Your task to perform on an android device: find snoozed emails in the gmail app Image 0: 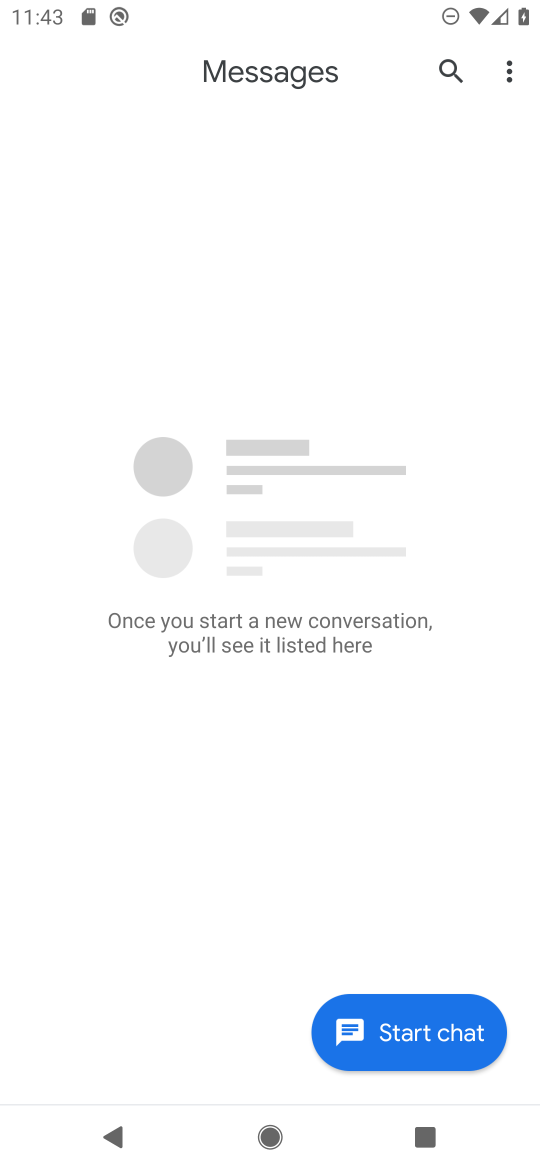
Step 0: press home button
Your task to perform on an android device: find snoozed emails in the gmail app Image 1: 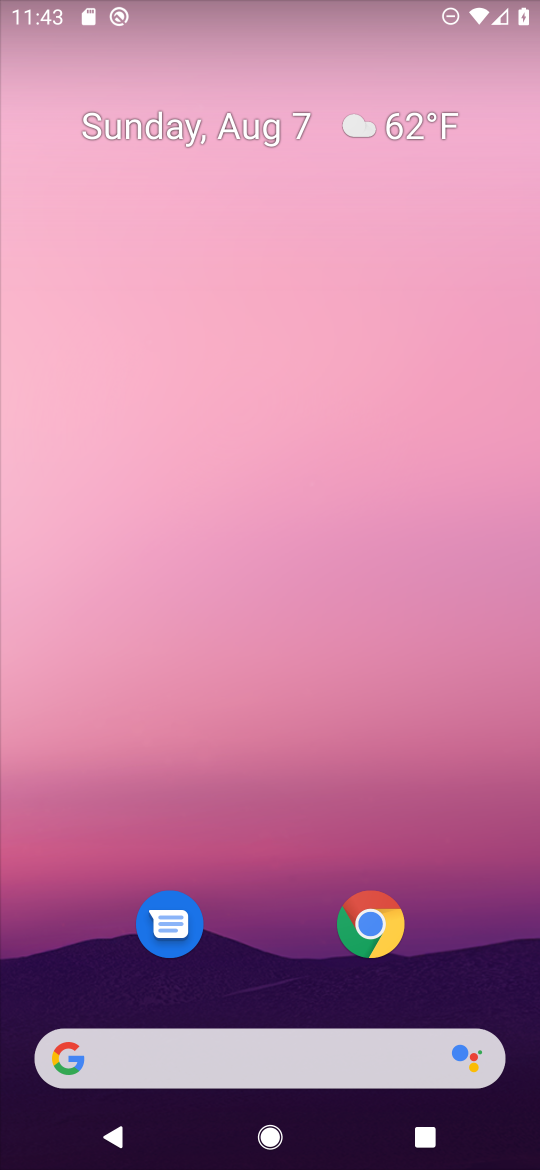
Step 1: drag from (234, 1030) to (234, 457)
Your task to perform on an android device: find snoozed emails in the gmail app Image 2: 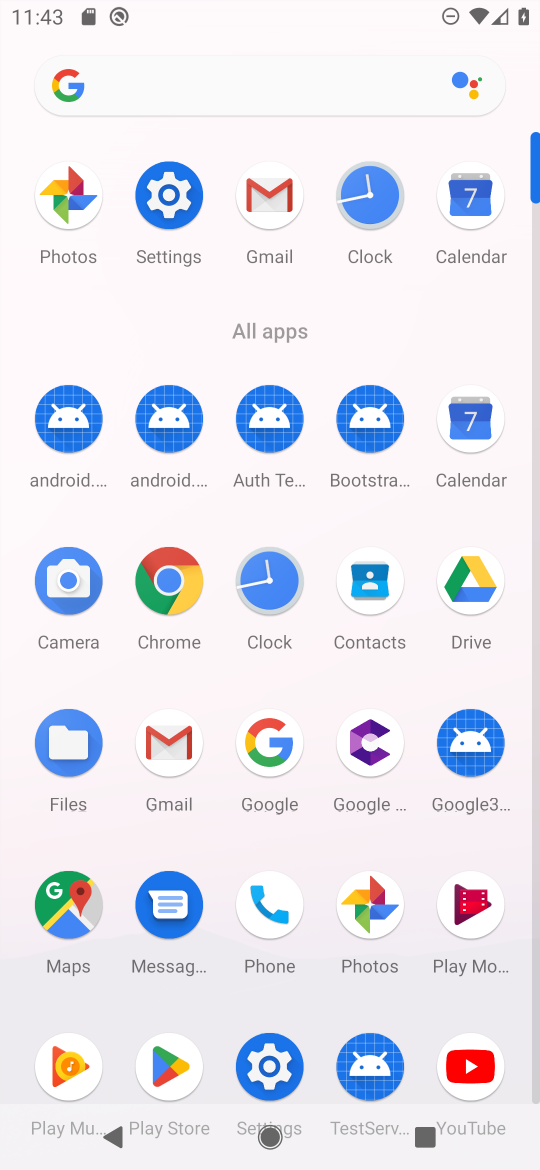
Step 2: click (254, 199)
Your task to perform on an android device: find snoozed emails in the gmail app Image 3: 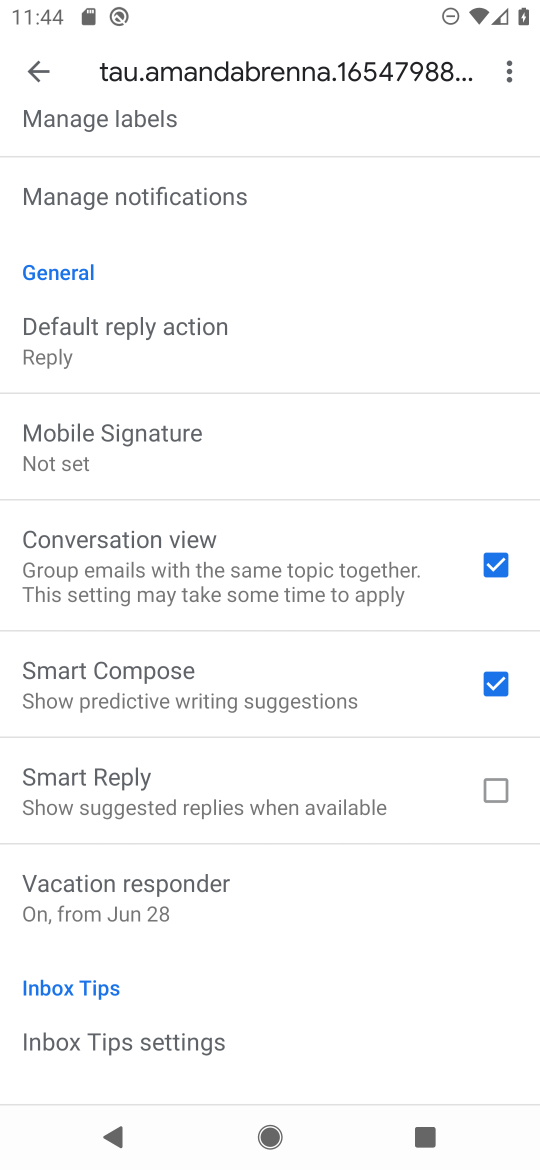
Step 3: click (39, 72)
Your task to perform on an android device: find snoozed emails in the gmail app Image 4: 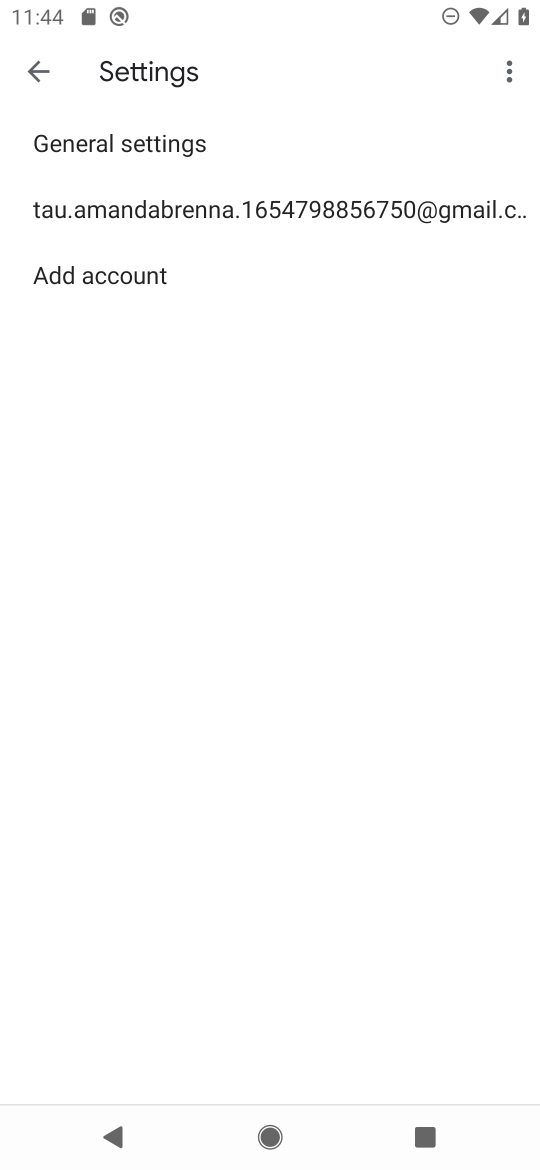
Step 4: click (49, 73)
Your task to perform on an android device: find snoozed emails in the gmail app Image 5: 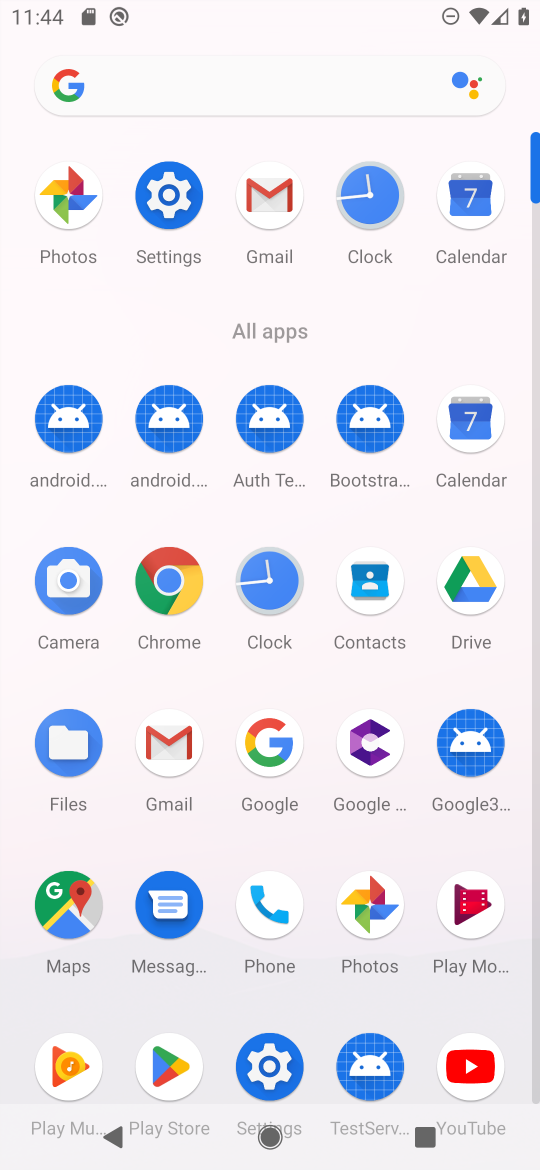
Step 5: click (262, 208)
Your task to perform on an android device: find snoozed emails in the gmail app Image 6: 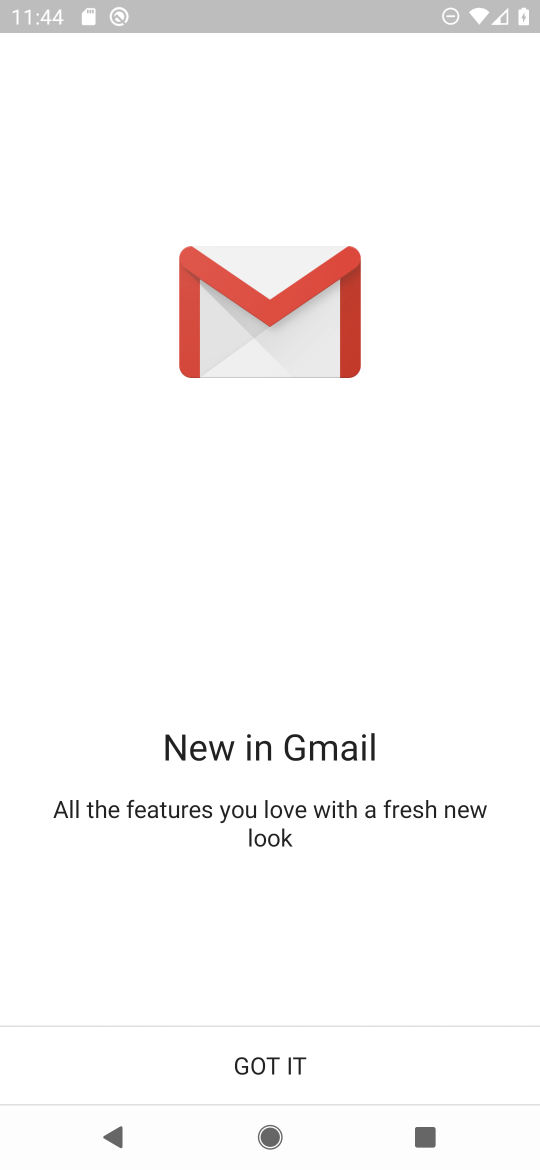
Step 6: click (220, 1068)
Your task to perform on an android device: find snoozed emails in the gmail app Image 7: 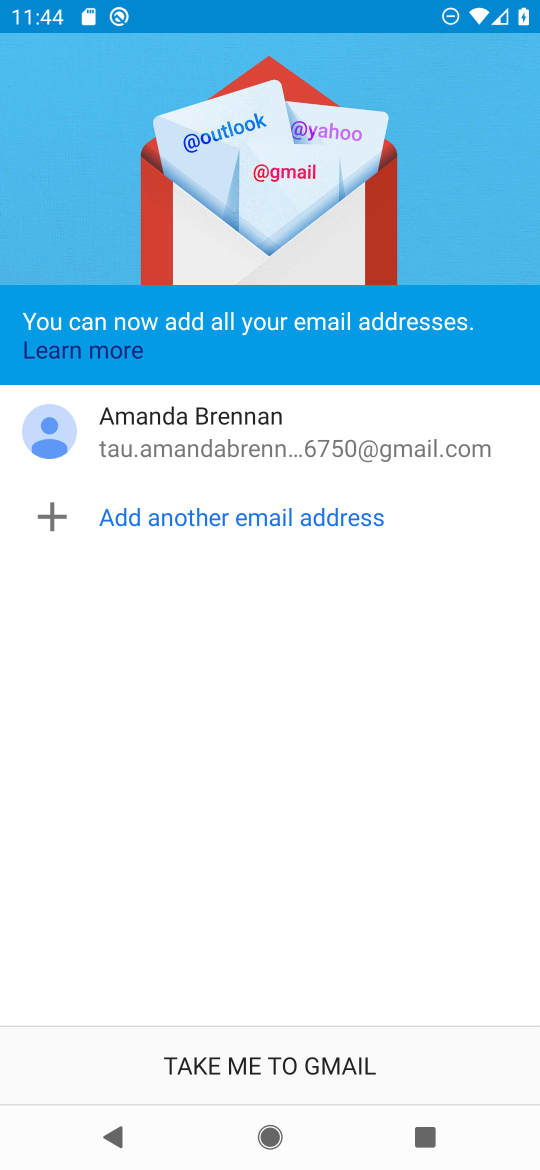
Step 7: click (292, 1062)
Your task to perform on an android device: find snoozed emails in the gmail app Image 8: 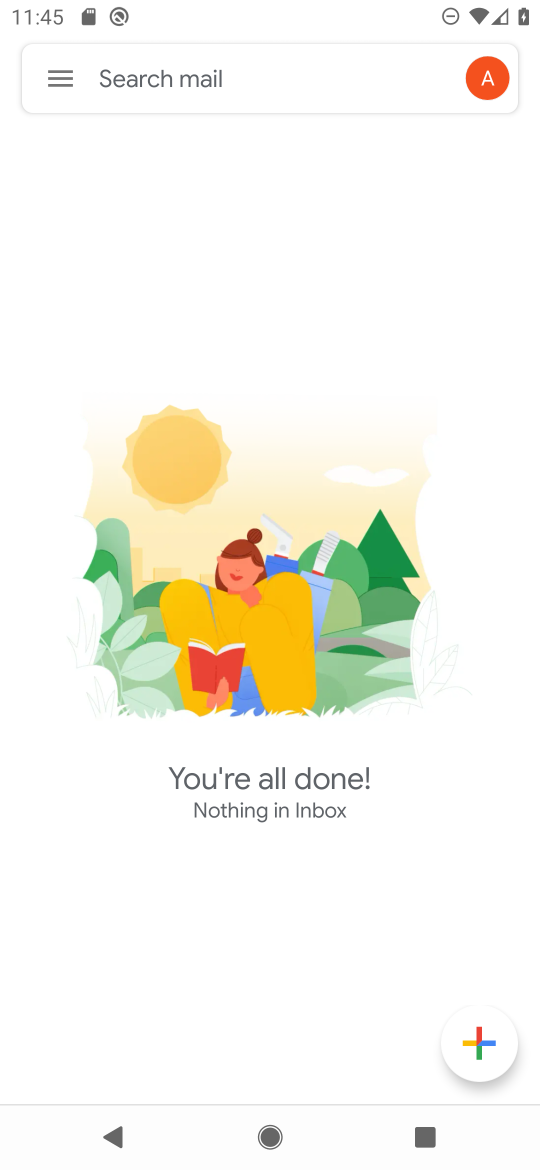
Step 8: click (55, 77)
Your task to perform on an android device: find snoozed emails in the gmail app Image 9: 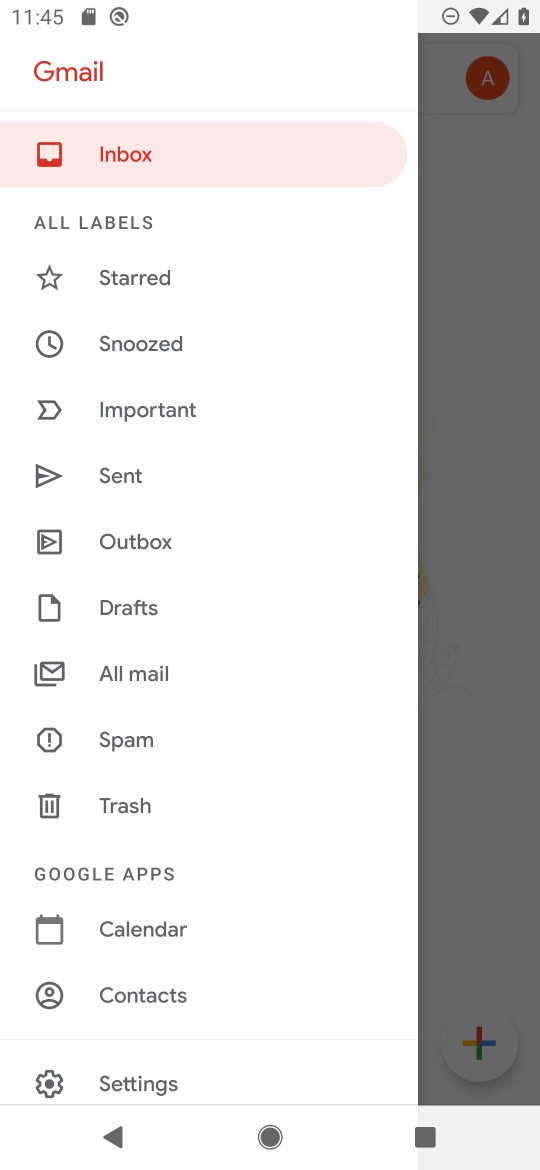
Step 9: click (107, 338)
Your task to perform on an android device: find snoozed emails in the gmail app Image 10: 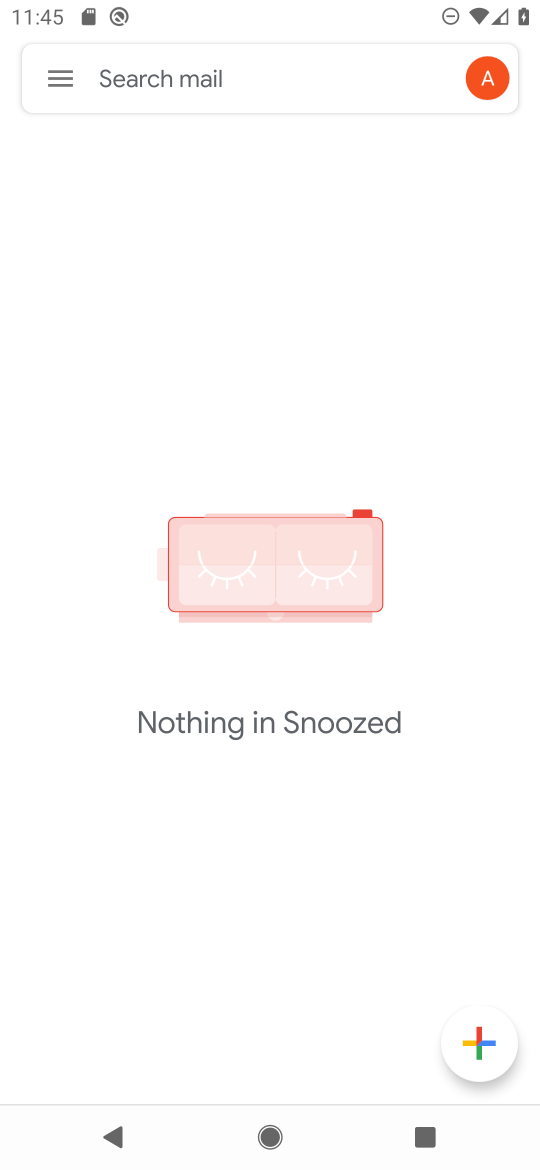
Step 10: task complete